Your task to perform on an android device: Open sound settings Image 0: 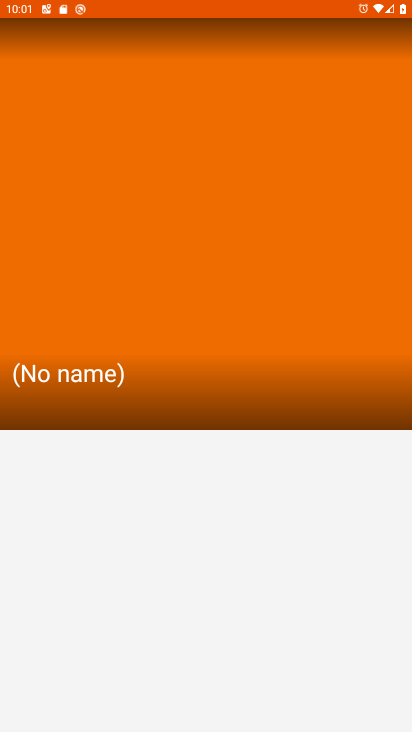
Step 0: drag from (248, 538) to (187, 135)
Your task to perform on an android device: Open sound settings Image 1: 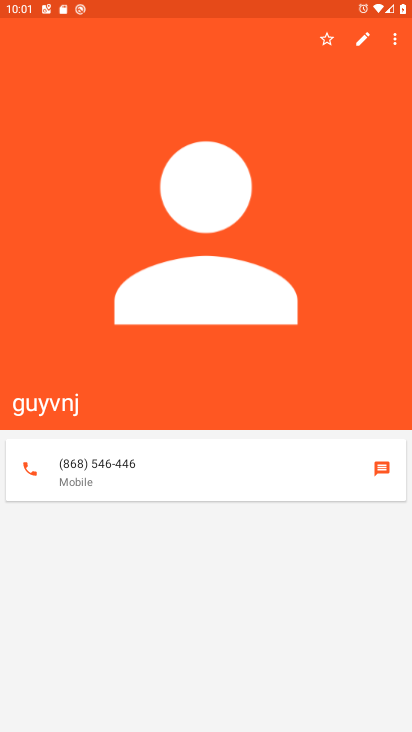
Step 1: press home button
Your task to perform on an android device: Open sound settings Image 2: 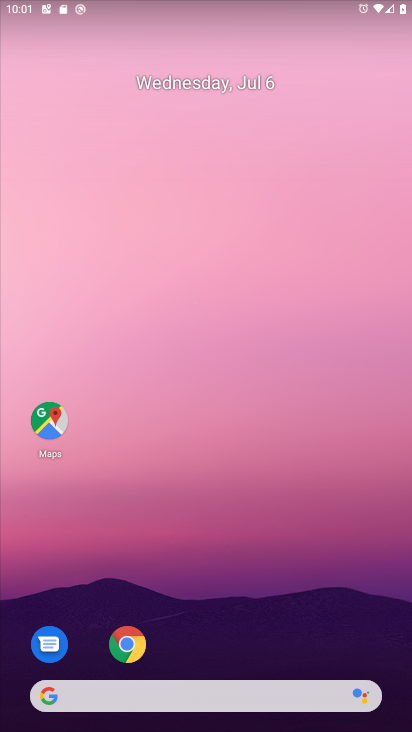
Step 2: drag from (246, 634) to (160, 288)
Your task to perform on an android device: Open sound settings Image 3: 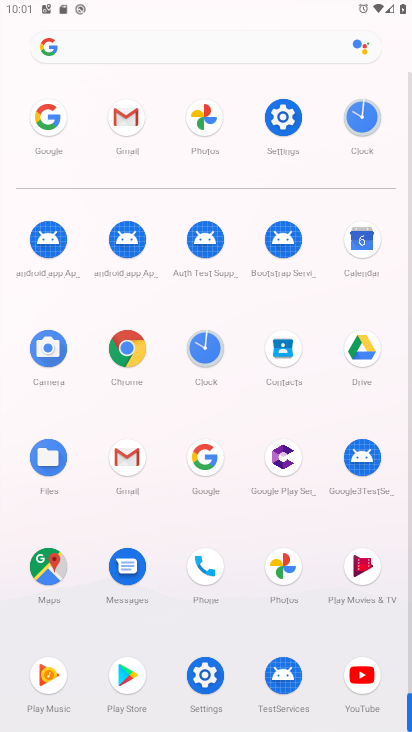
Step 3: click (275, 139)
Your task to perform on an android device: Open sound settings Image 4: 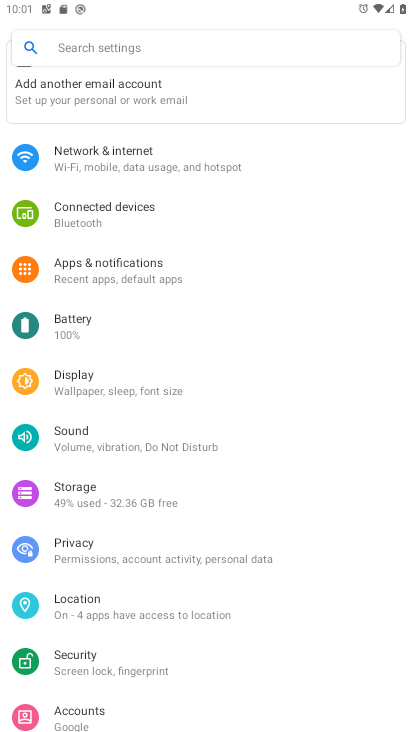
Step 4: click (139, 450)
Your task to perform on an android device: Open sound settings Image 5: 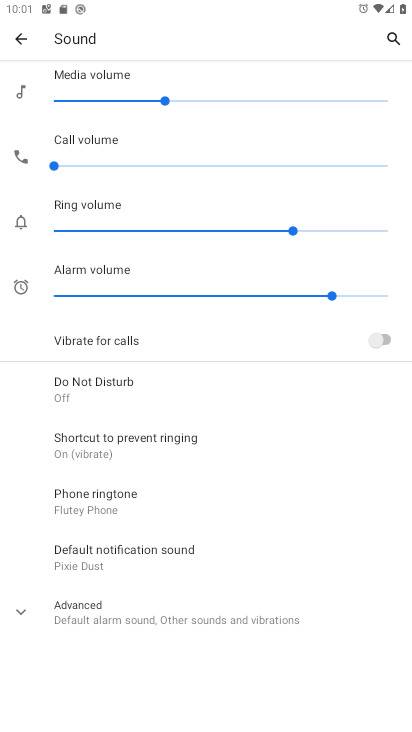
Step 5: task complete